Your task to perform on an android device: turn off notifications settings in the gmail app Image 0: 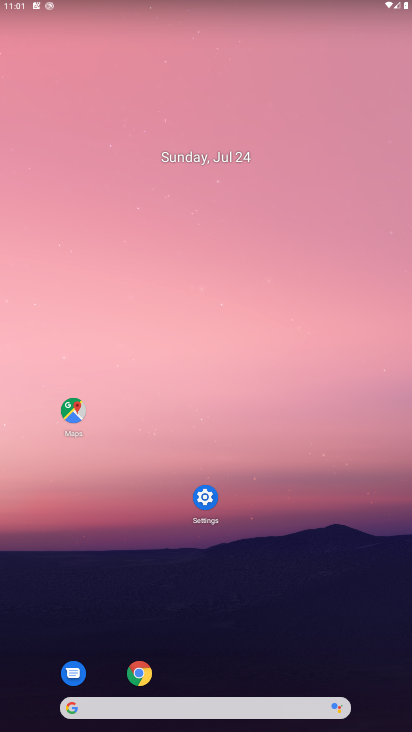
Step 0: drag from (284, 548) to (349, 121)
Your task to perform on an android device: turn off notifications settings in the gmail app Image 1: 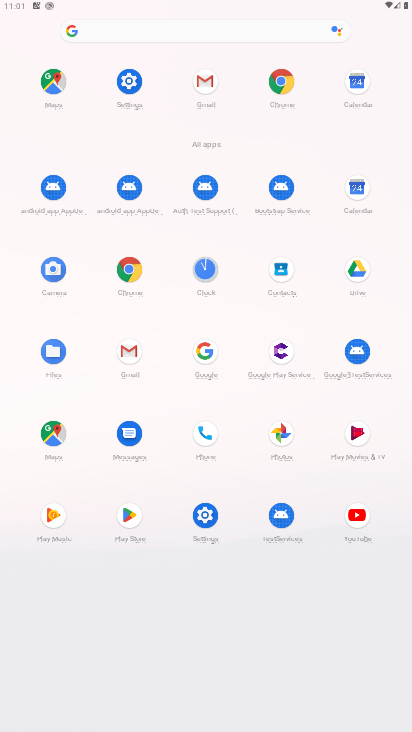
Step 1: click (133, 352)
Your task to perform on an android device: turn off notifications settings in the gmail app Image 2: 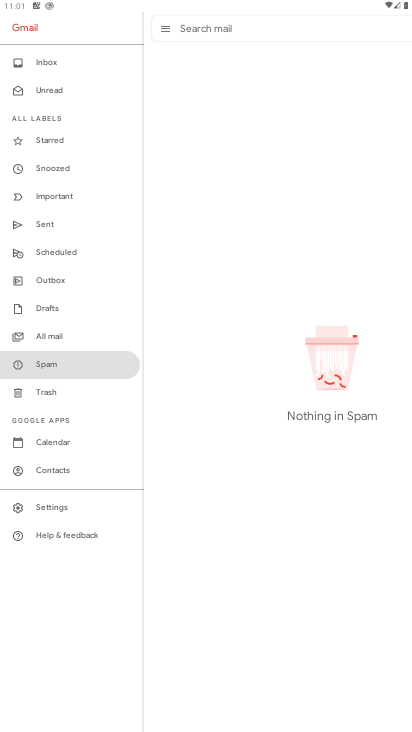
Step 2: click (47, 510)
Your task to perform on an android device: turn off notifications settings in the gmail app Image 3: 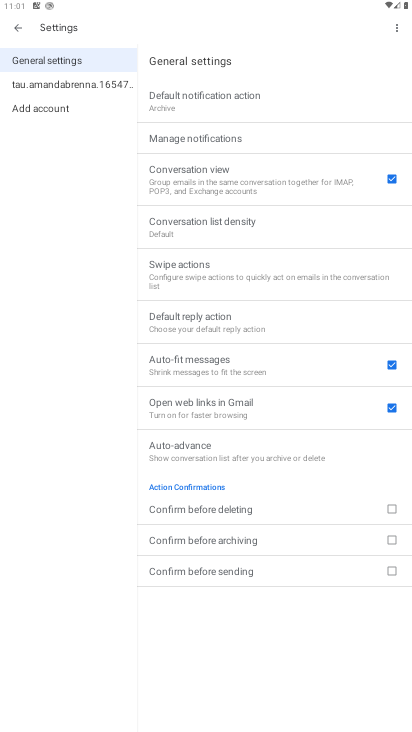
Step 3: task complete